Your task to perform on an android device: Go to Android settings Image 0: 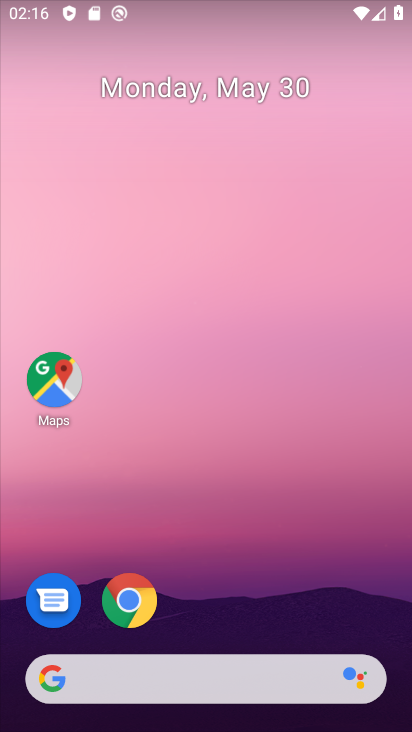
Step 0: drag from (275, 622) to (316, 3)
Your task to perform on an android device: Go to Android settings Image 1: 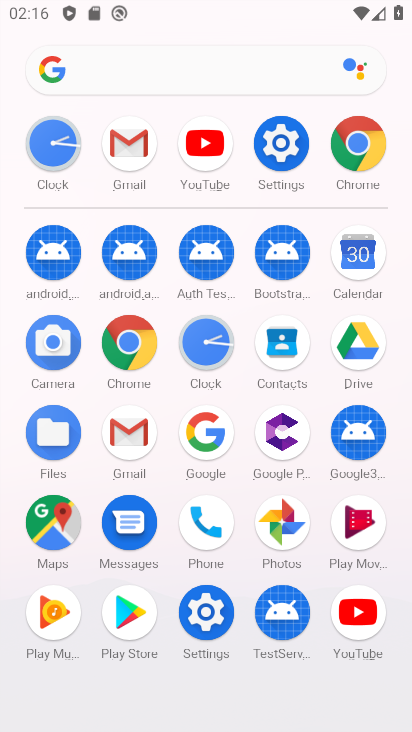
Step 1: click (292, 146)
Your task to perform on an android device: Go to Android settings Image 2: 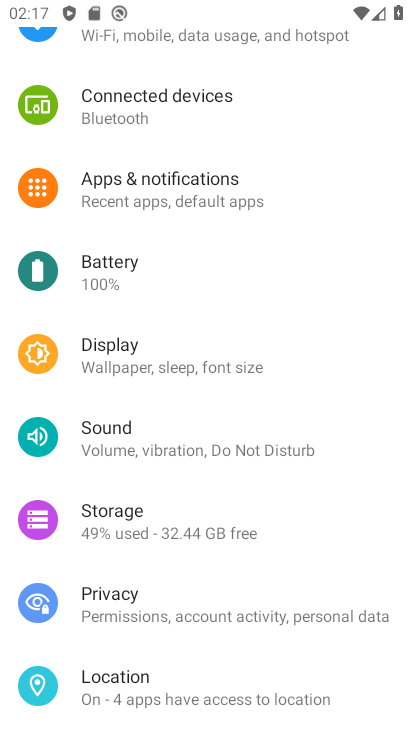
Step 2: drag from (315, 625) to (334, 169)
Your task to perform on an android device: Go to Android settings Image 3: 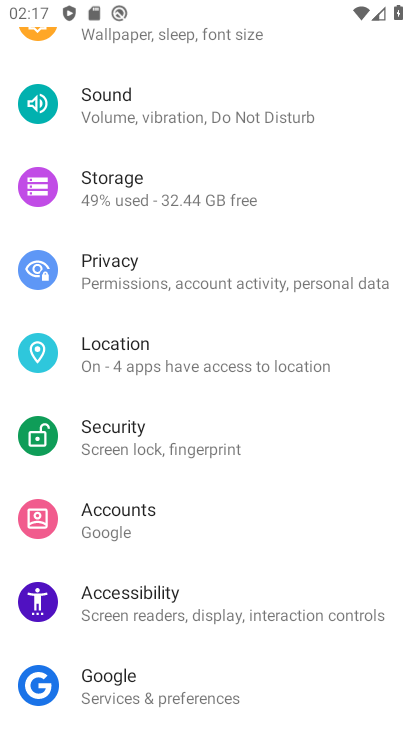
Step 3: drag from (232, 640) to (228, 226)
Your task to perform on an android device: Go to Android settings Image 4: 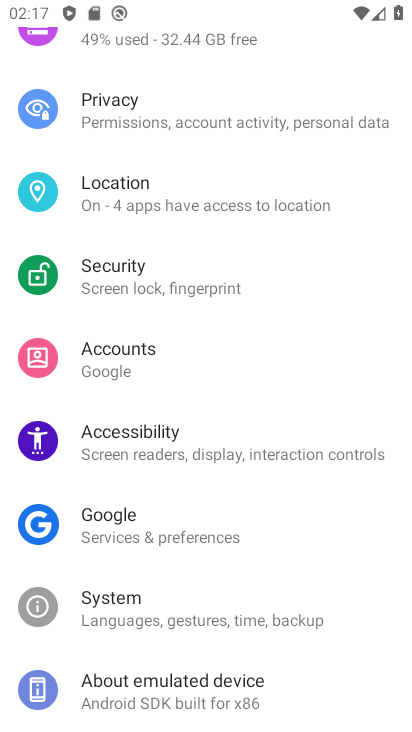
Step 4: click (210, 692)
Your task to perform on an android device: Go to Android settings Image 5: 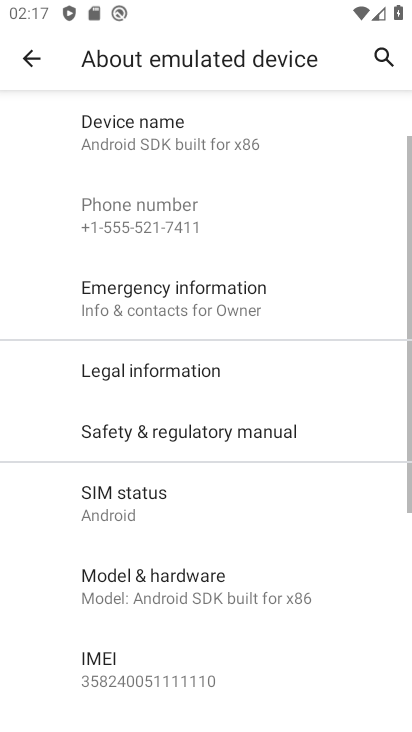
Step 5: drag from (275, 642) to (272, 225)
Your task to perform on an android device: Go to Android settings Image 6: 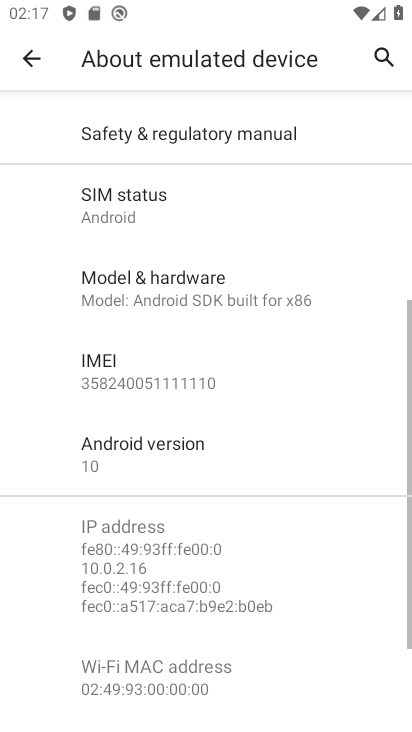
Step 6: click (187, 464)
Your task to perform on an android device: Go to Android settings Image 7: 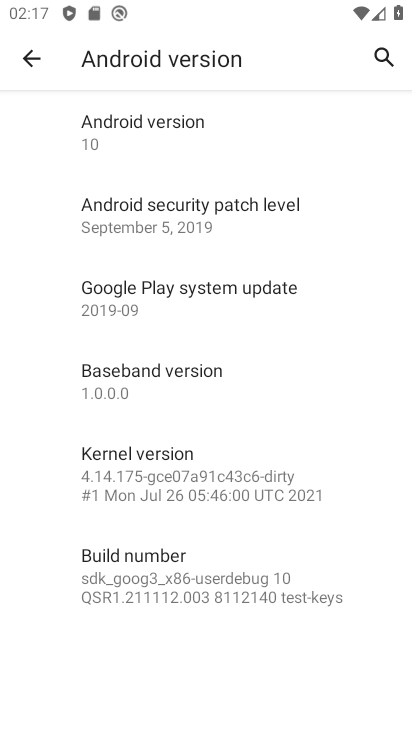
Step 7: task complete